Your task to perform on an android device: turn on sleep mode Image 0: 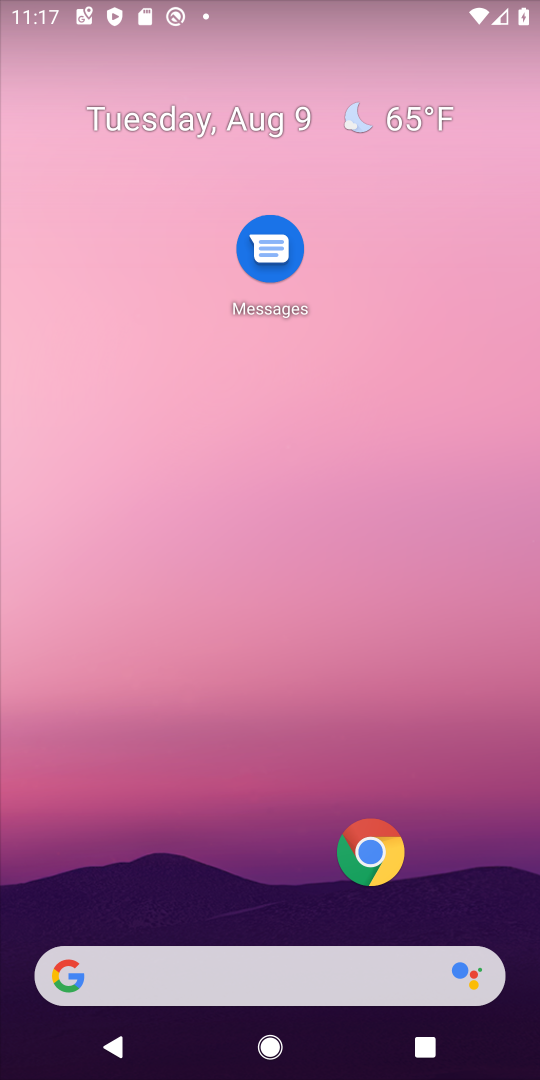
Step 0: drag from (270, 908) to (271, 355)
Your task to perform on an android device: turn on sleep mode Image 1: 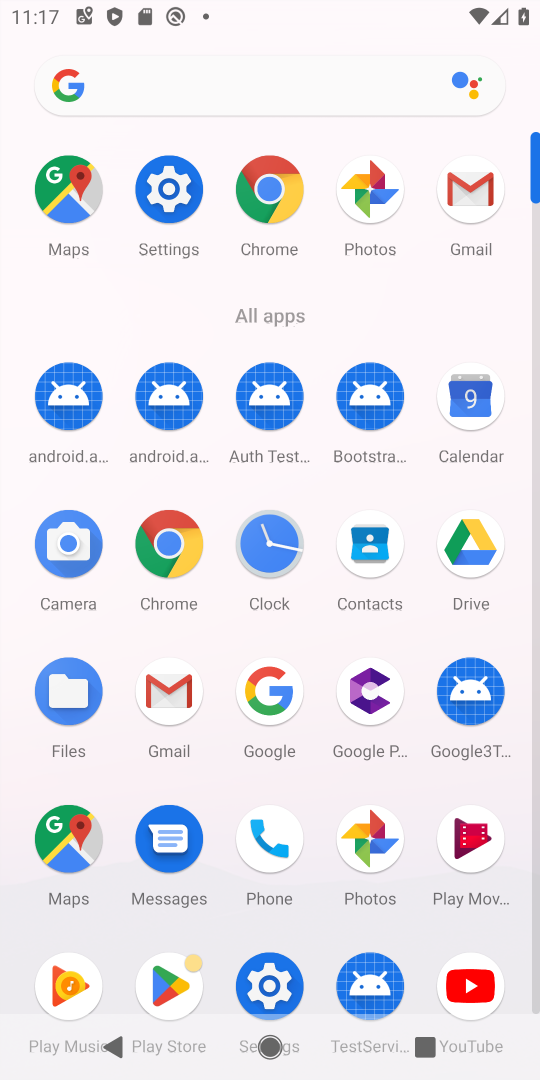
Step 1: click (193, 166)
Your task to perform on an android device: turn on sleep mode Image 2: 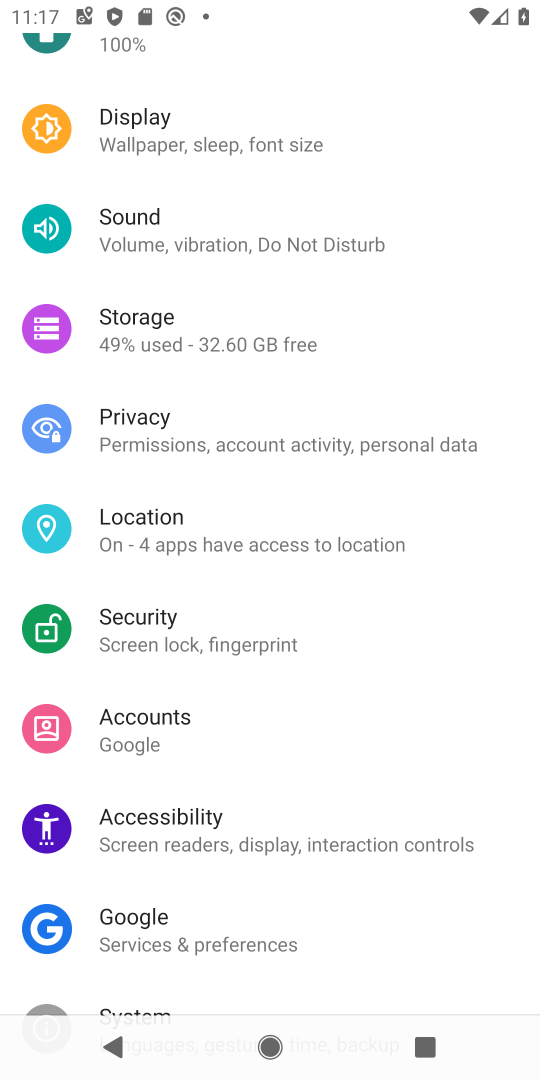
Step 2: task complete